Your task to perform on an android device: Go to accessibility settings Image 0: 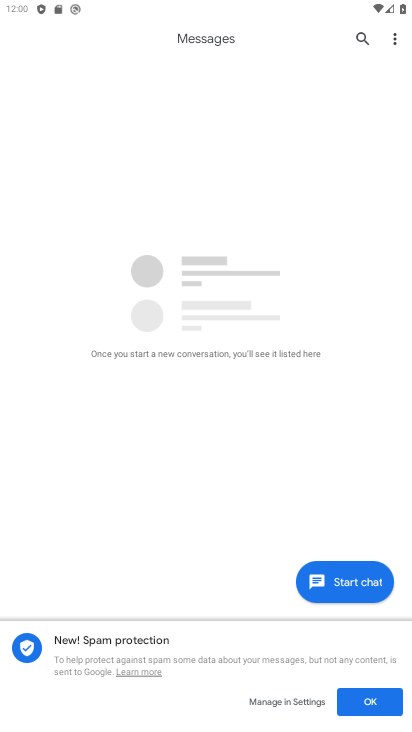
Step 0: press home button
Your task to perform on an android device: Go to accessibility settings Image 1: 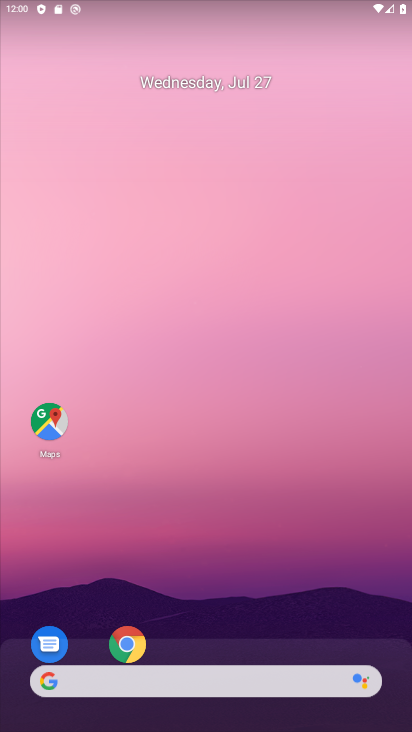
Step 1: drag from (169, 641) to (194, 284)
Your task to perform on an android device: Go to accessibility settings Image 2: 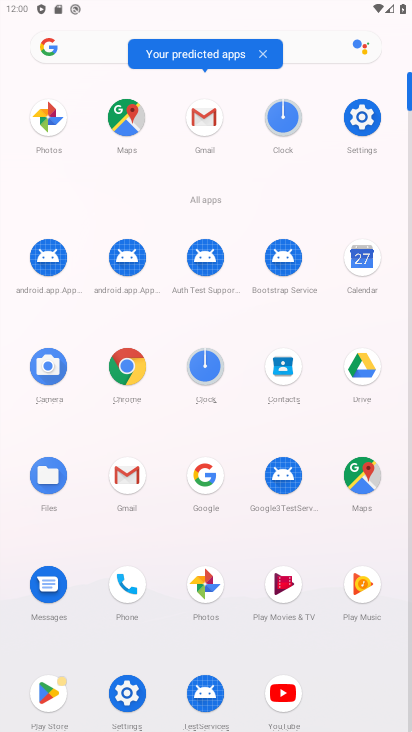
Step 2: click (355, 120)
Your task to perform on an android device: Go to accessibility settings Image 3: 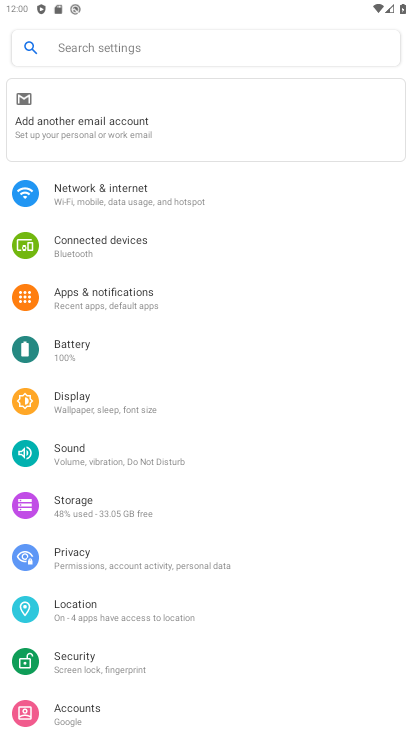
Step 3: drag from (166, 672) to (211, 69)
Your task to perform on an android device: Go to accessibility settings Image 4: 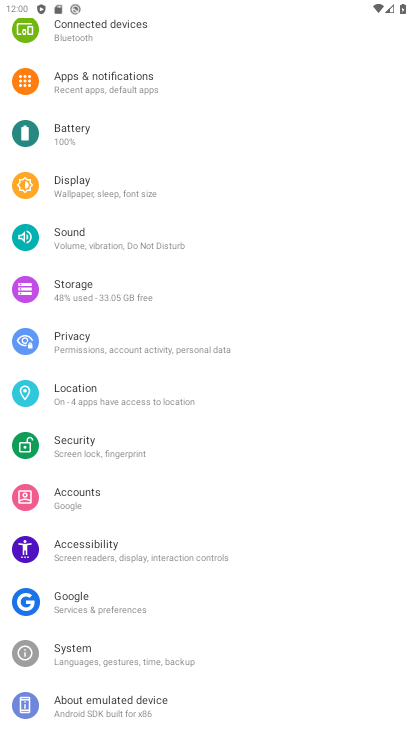
Step 4: click (121, 550)
Your task to perform on an android device: Go to accessibility settings Image 5: 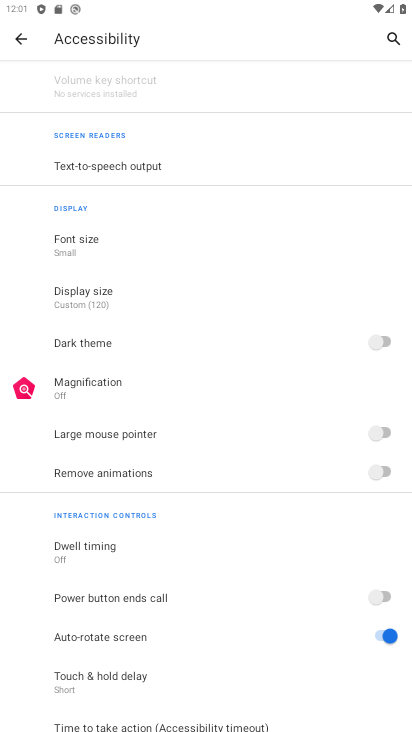
Step 5: task complete